Your task to perform on an android device: turn off improve location accuracy Image 0: 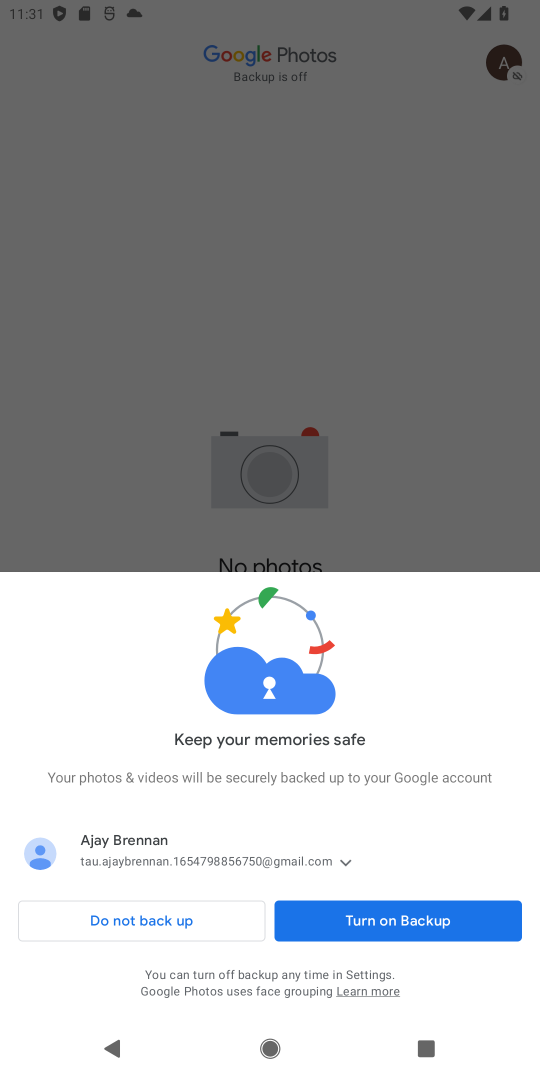
Step 0: press home button
Your task to perform on an android device: turn off improve location accuracy Image 1: 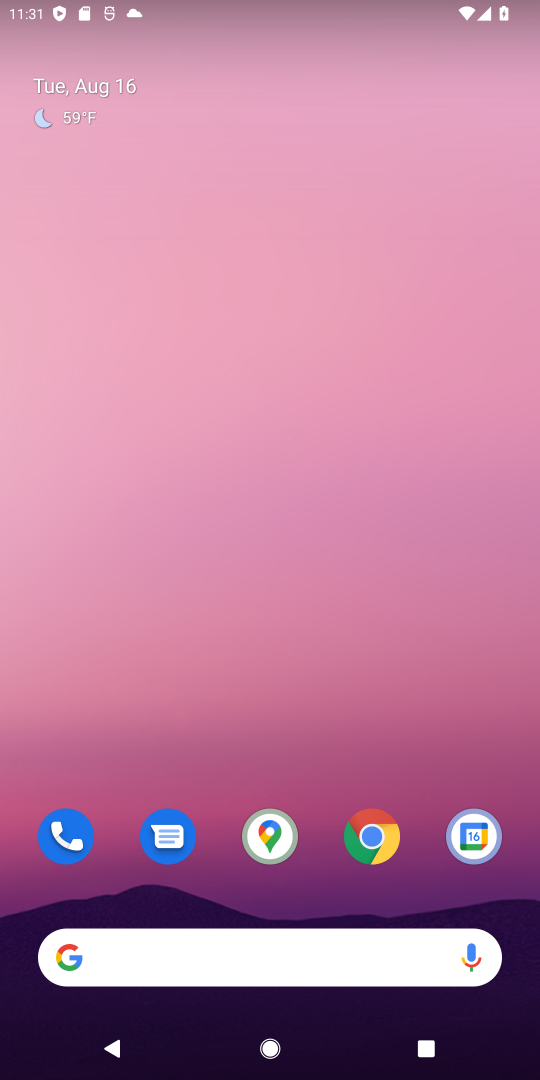
Step 1: drag from (198, 962) to (260, 304)
Your task to perform on an android device: turn off improve location accuracy Image 2: 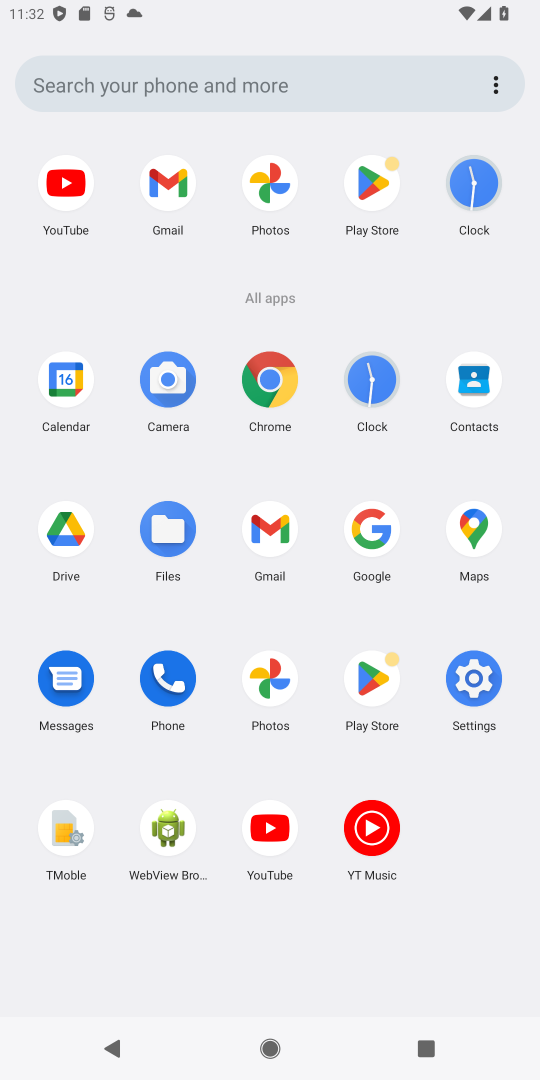
Step 2: click (472, 678)
Your task to perform on an android device: turn off improve location accuracy Image 3: 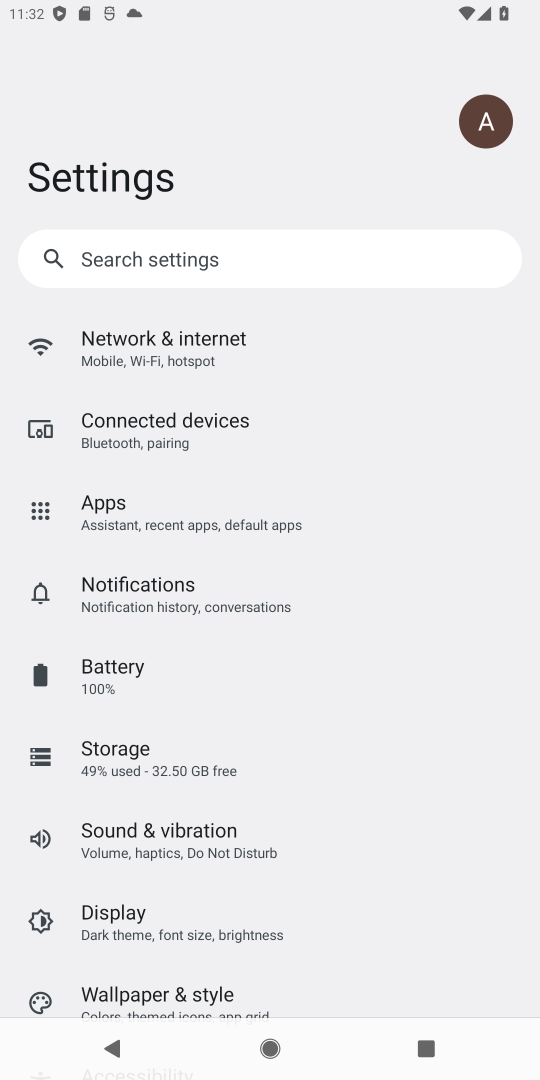
Step 3: drag from (196, 679) to (272, 556)
Your task to perform on an android device: turn off improve location accuracy Image 4: 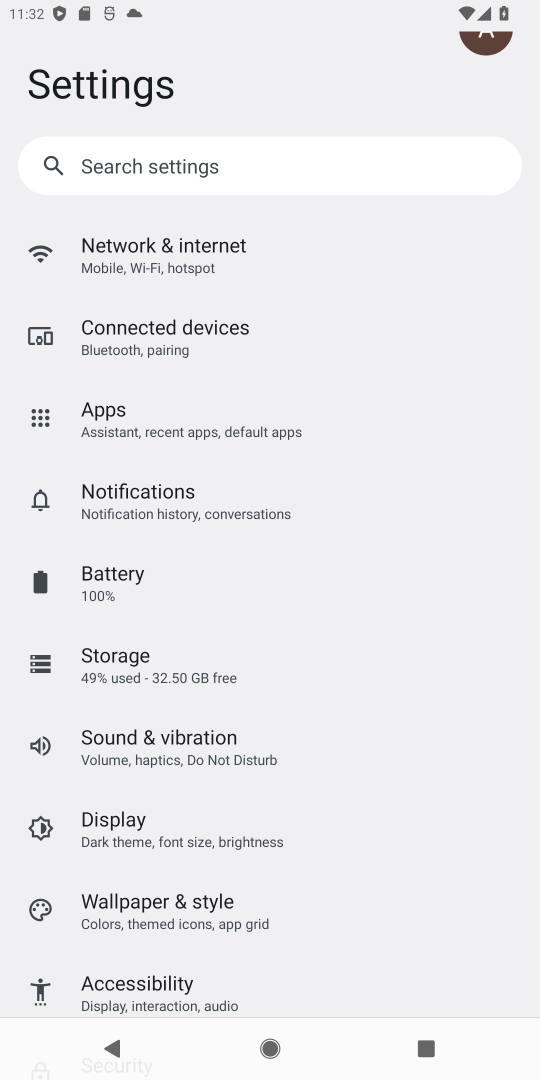
Step 4: drag from (206, 802) to (229, 686)
Your task to perform on an android device: turn off improve location accuracy Image 5: 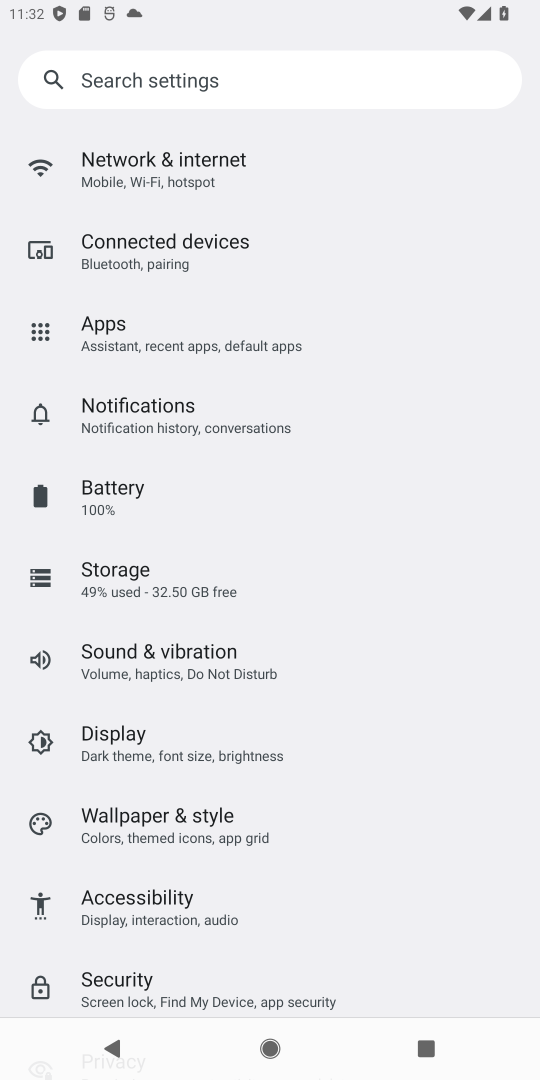
Step 5: drag from (187, 869) to (281, 731)
Your task to perform on an android device: turn off improve location accuracy Image 6: 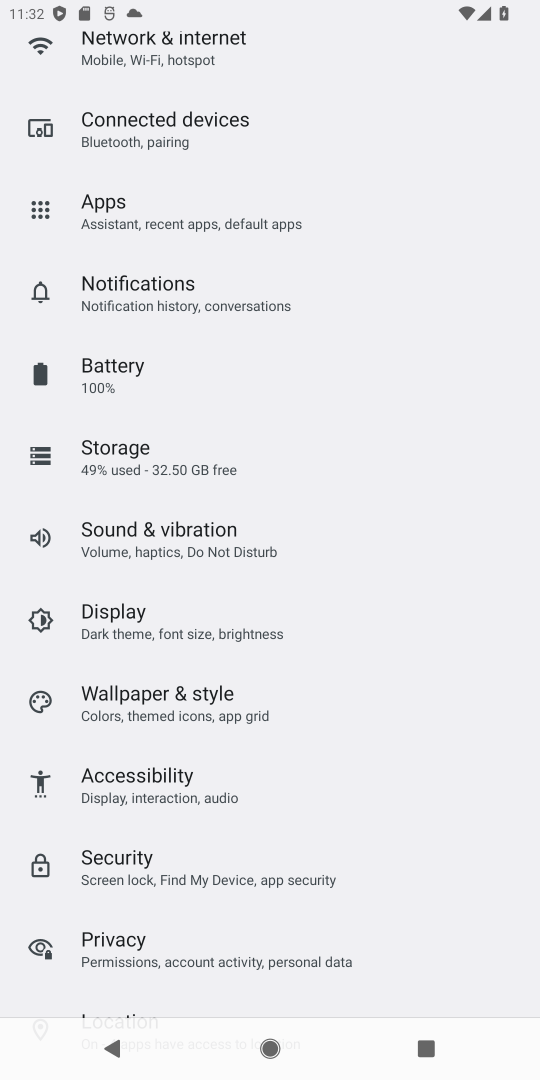
Step 6: drag from (165, 900) to (313, 698)
Your task to perform on an android device: turn off improve location accuracy Image 7: 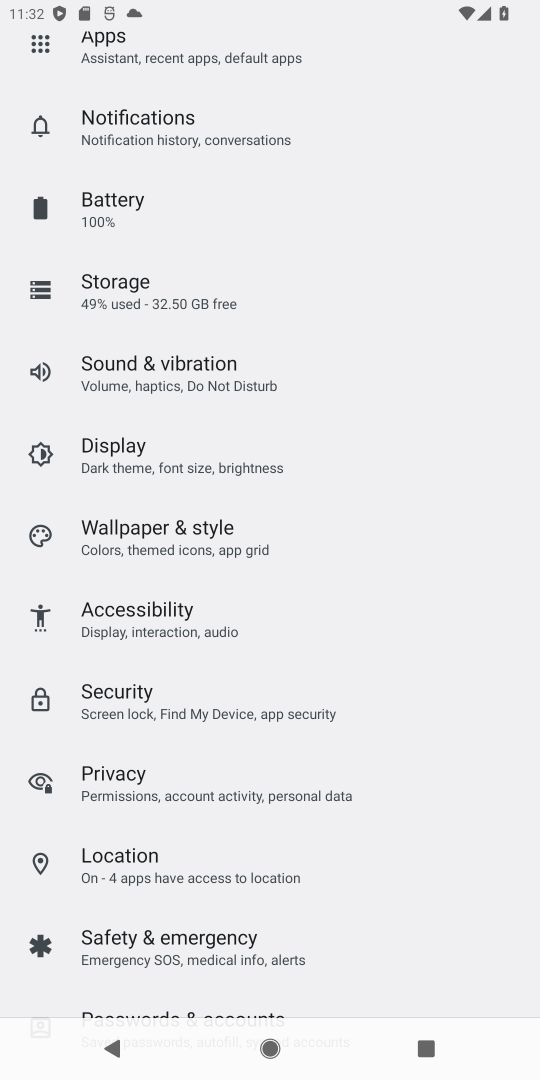
Step 7: click (141, 884)
Your task to perform on an android device: turn off improve location accuracy Image 8: 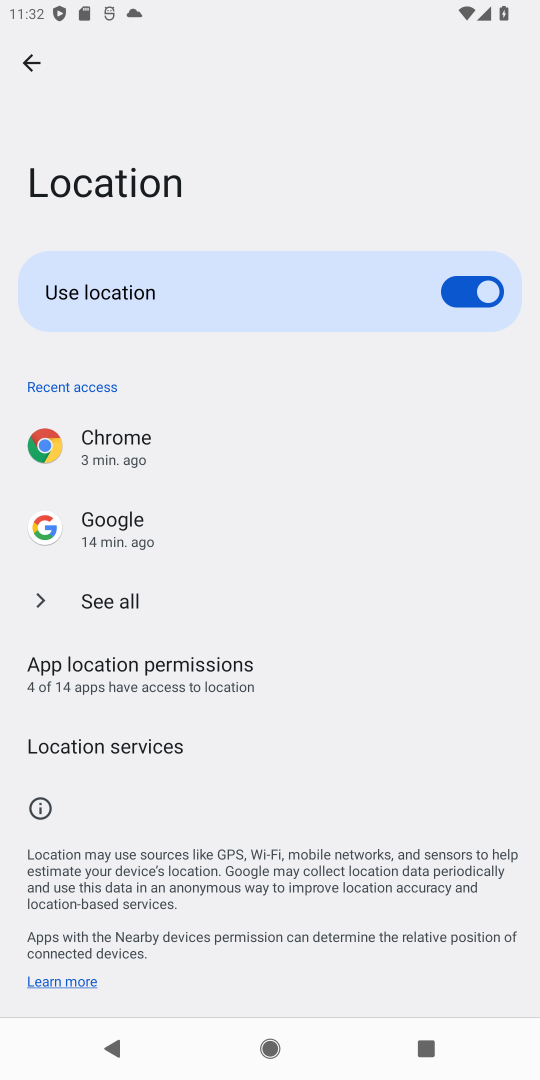
Step 8: click (144, 751)
Your task to perform on an android device: turn off improve location accuracy Image 9: 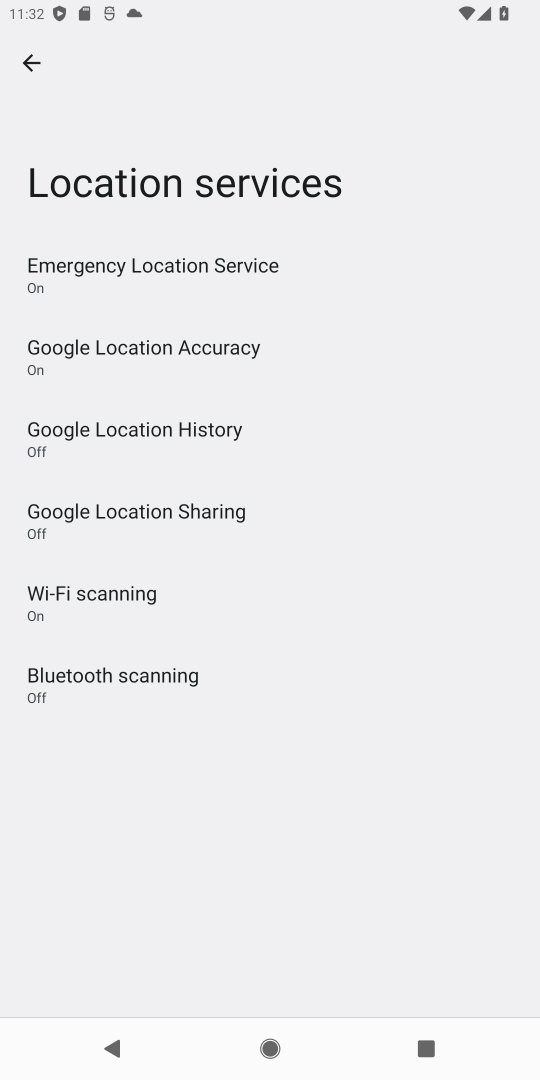
Step 9: click (251, 353)
Your task to perform on an android device: turn off improve location accuracy Image 10: 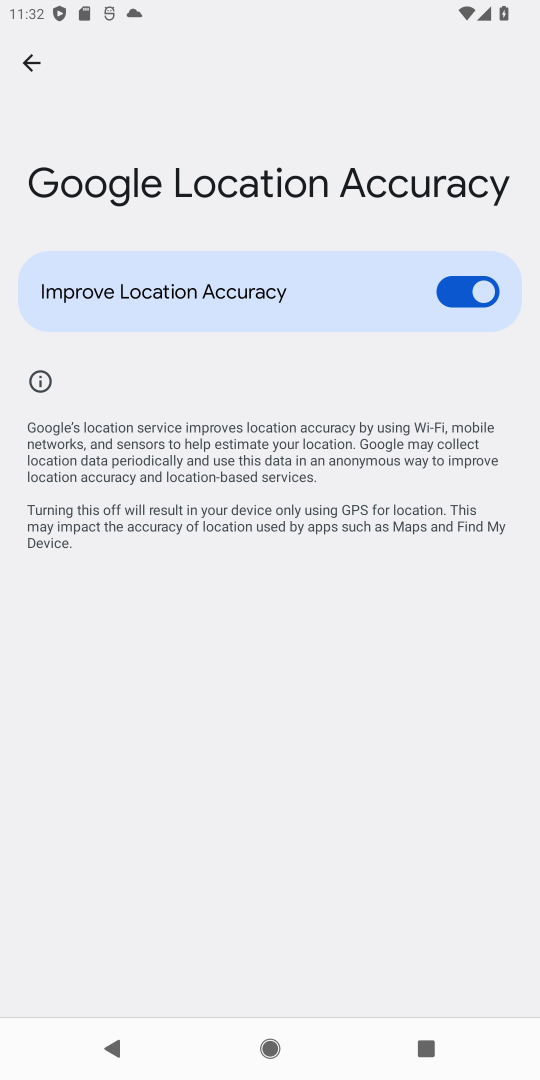
Step 10: click (443, 286)
Your task to perform on an android device: turn off improve location accuracy Image 11: 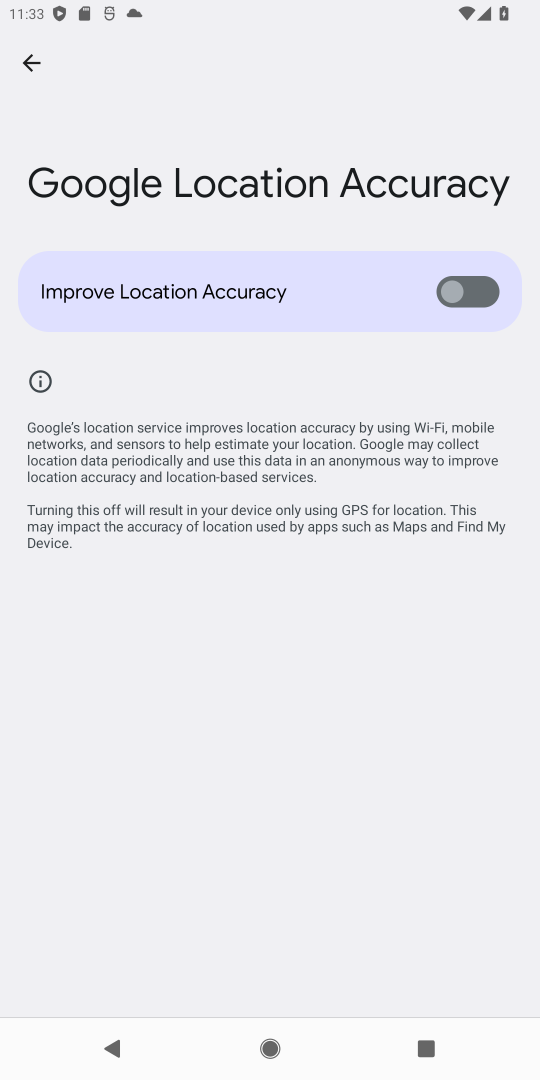
Step 11: task complete